Your task to perform on an android device: turn on the 12-hour format for clock Image 0: 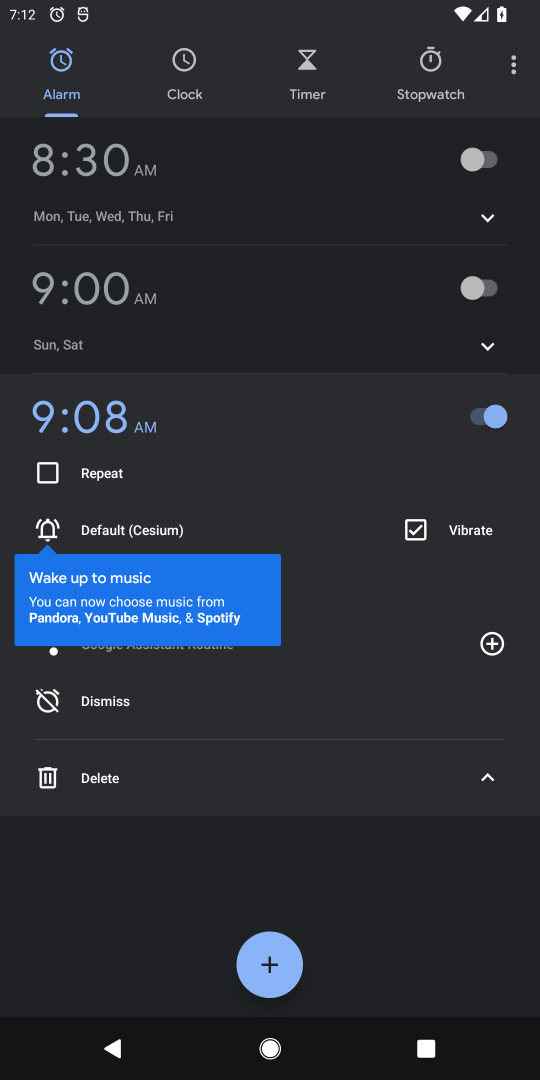
Step 0: press home button
Your task to perform on an android device: turn on the 12-hour format for clock Image 1: 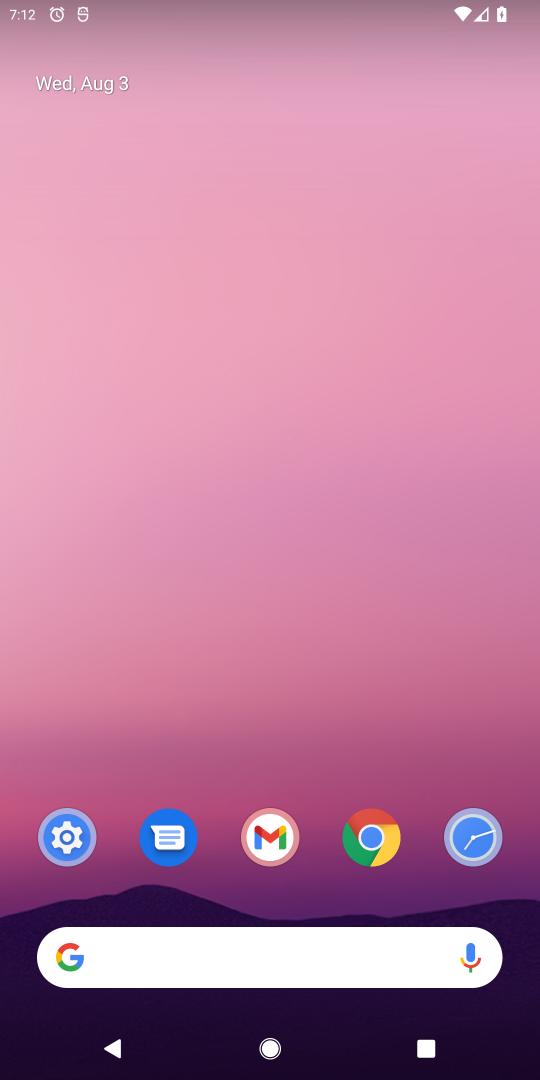
Step 1: drag from (325, 771) to (330, 73)
Your task to perform on an android device: turn on the 12-hour format for clock Image 2: 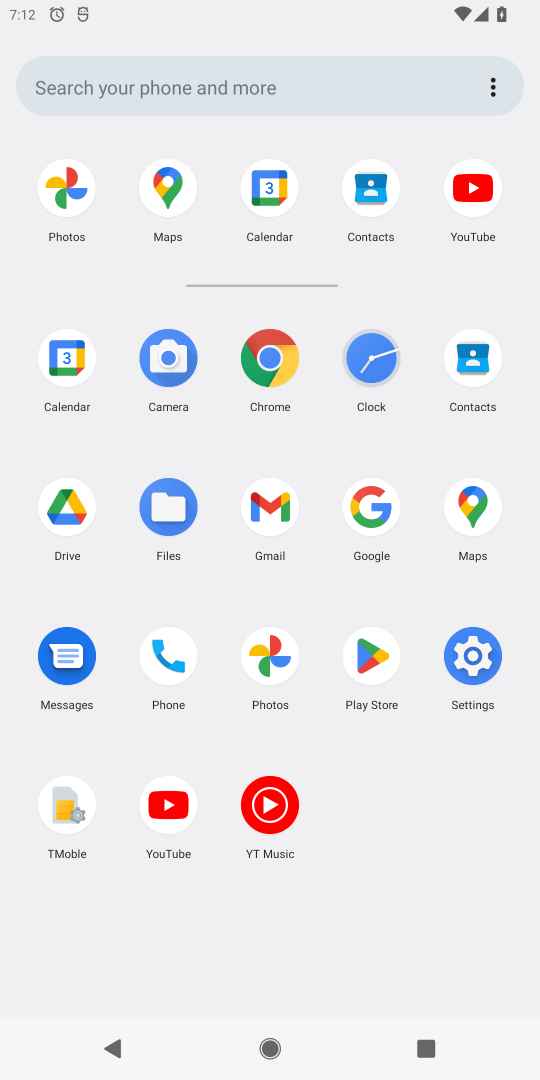
Step 2: click (360, 357)
Your task to perform on an android device: turn on the 12-hour format for clock Image 3: 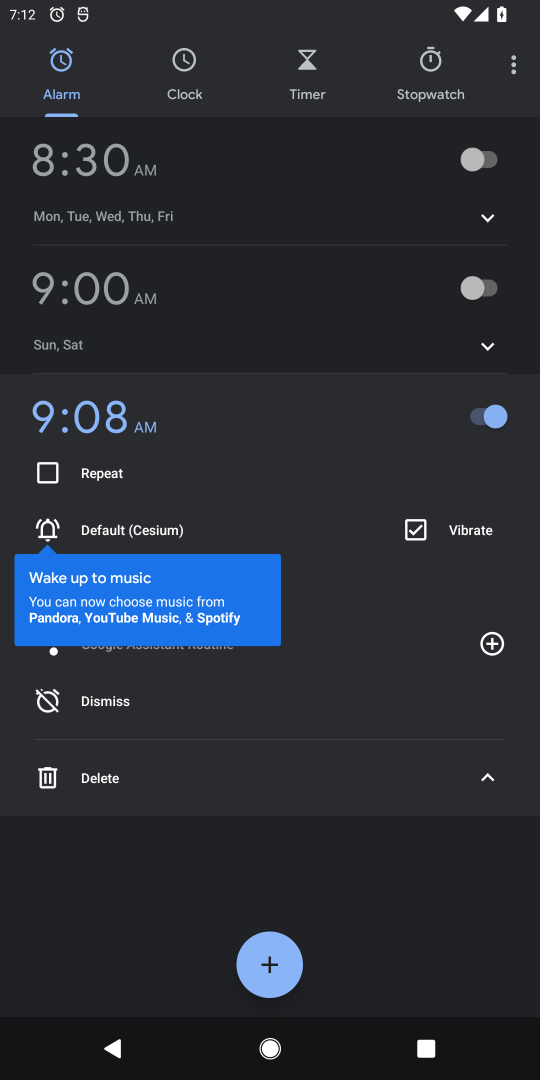
Step 3: click (501, 65)
Your task to perform on an android device: turn on the 12-hour format for clock Image 4: 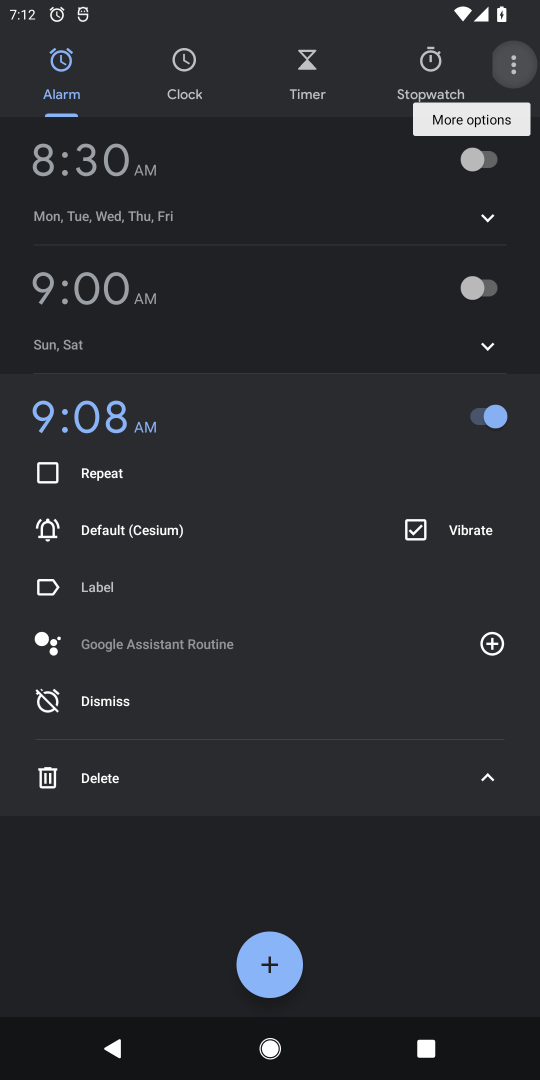
Step 4: click (501, 65)
Your task to perform on an android device: turn on the 12-hour format for clock Image 5: 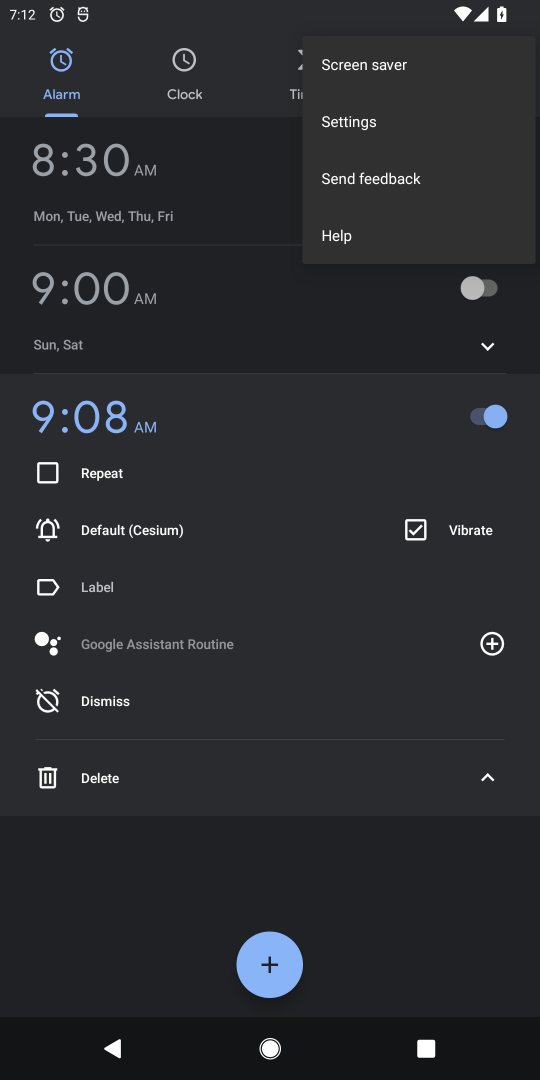
Step 5: click (350, 124)
Your task to perform on an android device: turn on the 12-hour format for clock Image 6: 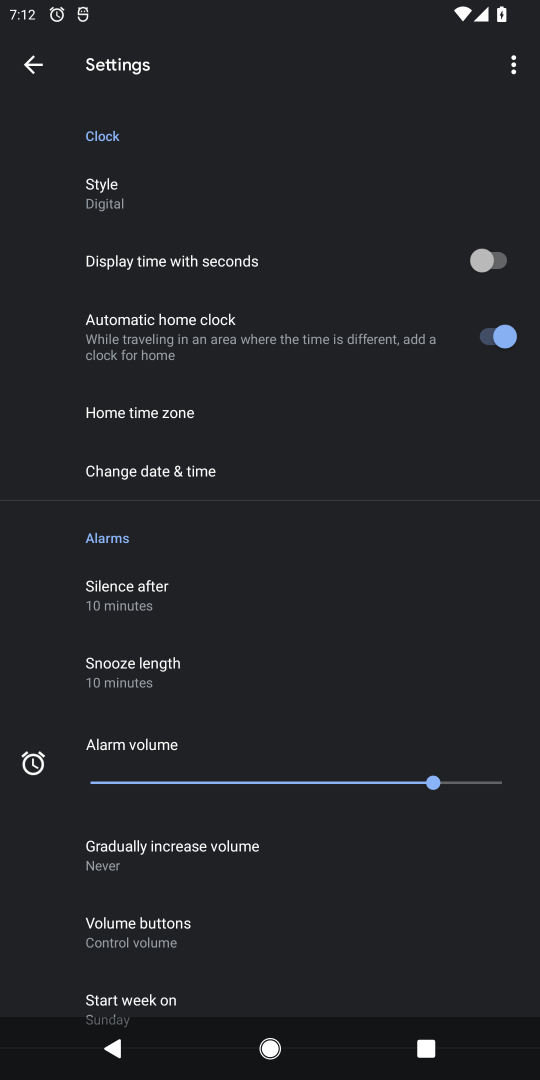
Step 6: drag from (339, 932) to (315, 551)
Your task to perform on an android device: turn on the 12-hour format for clock Image 7: 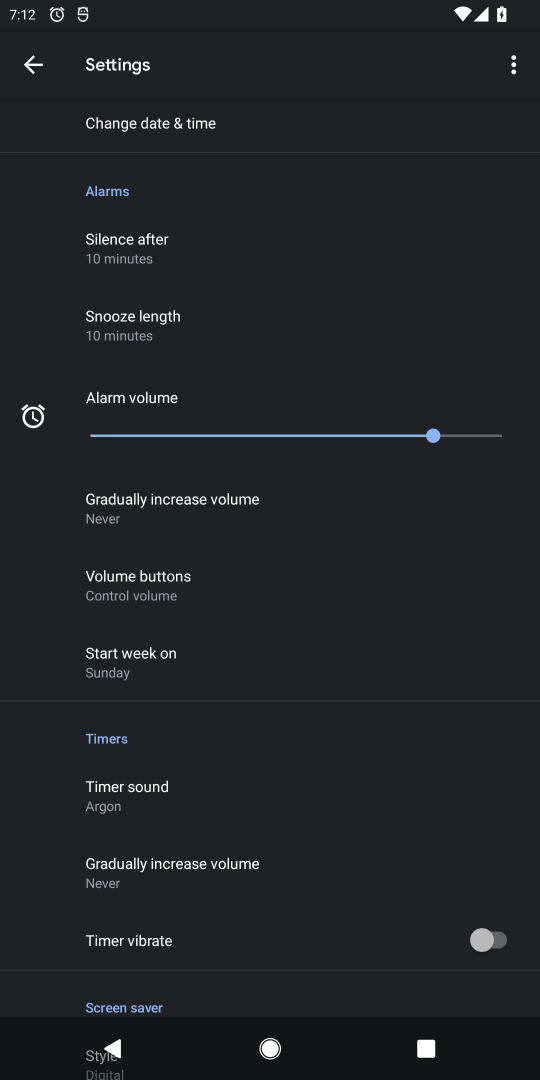
Step 7: click (126, 124)
Your task to perform on an android device: turn on the 12-hour format for clock Image 8: 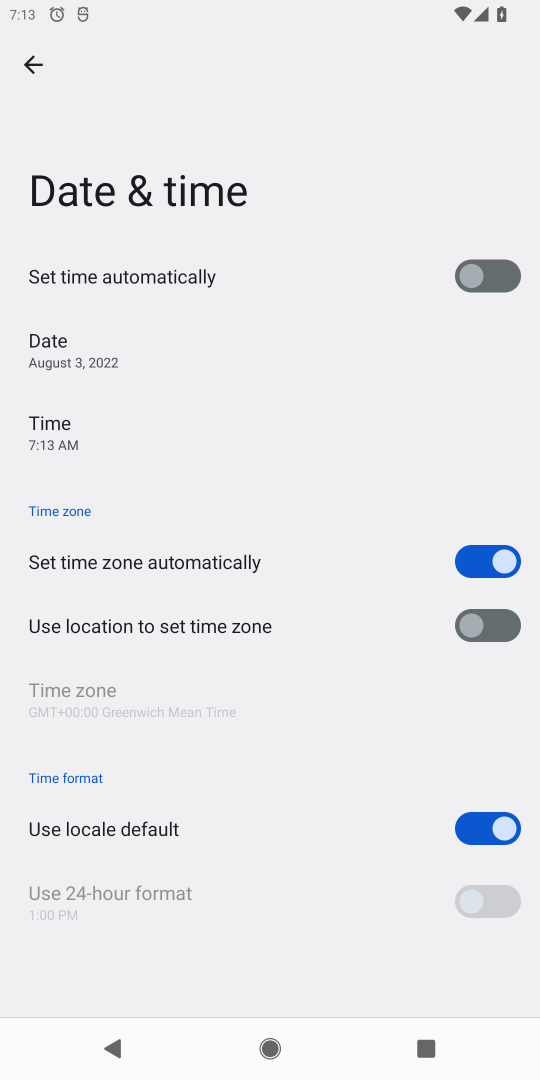
Step 8: task complete